Your task to perform on an android device: Clear the cart on bestbuy.com. Image 0: 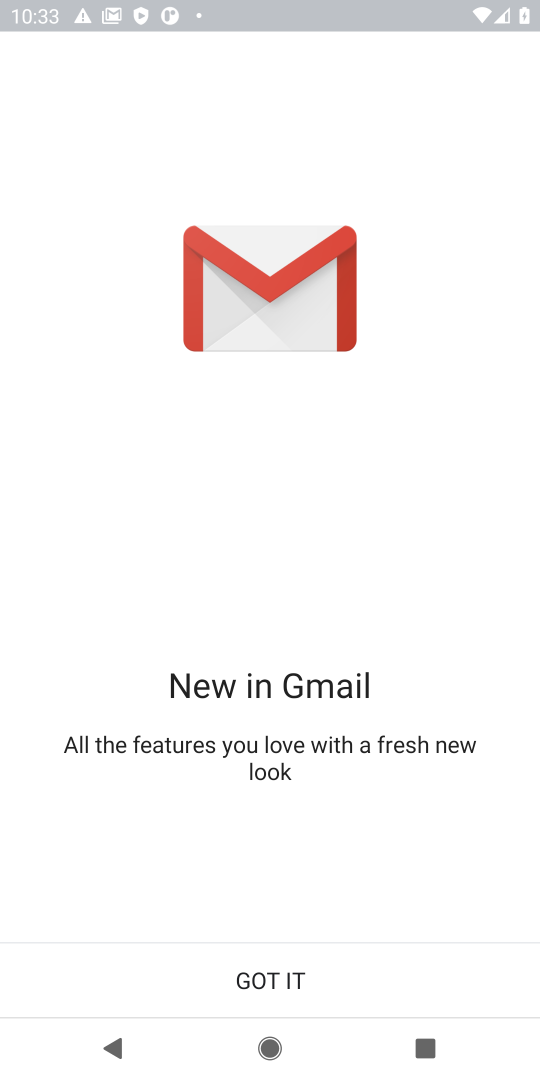
Step 0: press home button
Your task to perform on an android device: Clear the cart on bestbuy.com. Image 1: 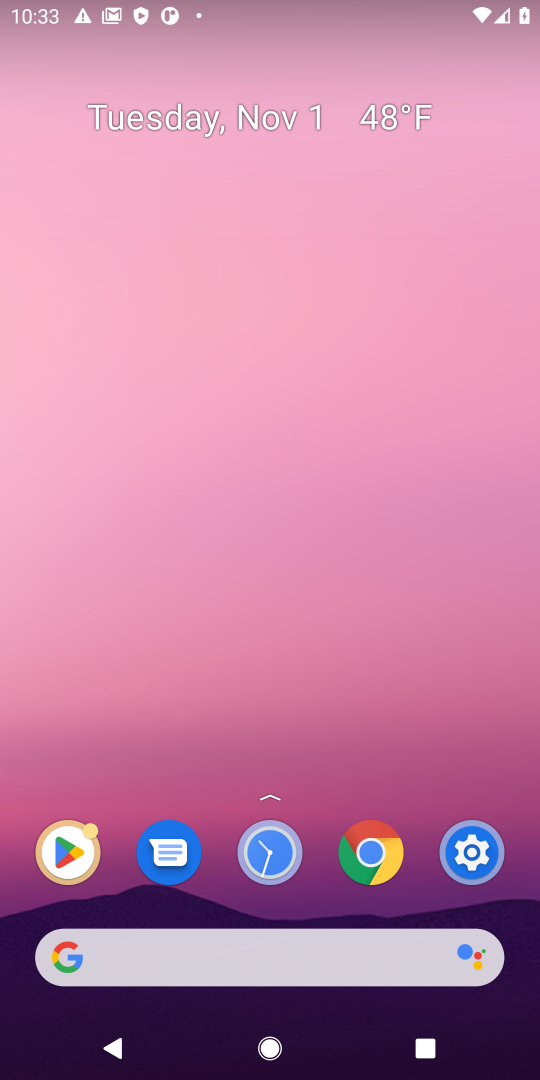
Step 1: click (223, 959)
Your task to perform on an android device: Clear the cart on bestbuy.com. Image 2: 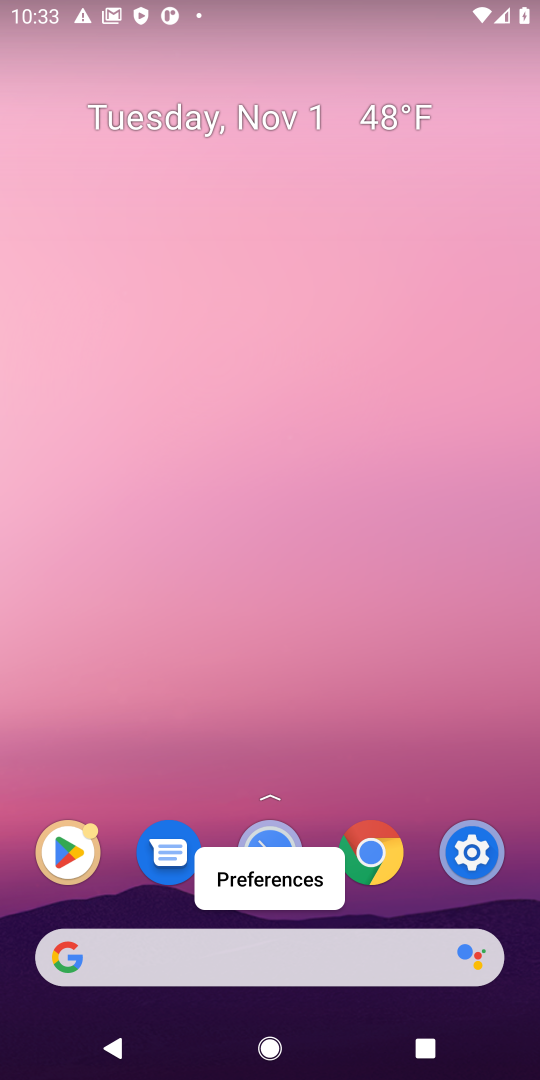
Step 2: click (278, 964)
Your task to perform on an android device: Clear the cart on bestbuy.com. Image 3: 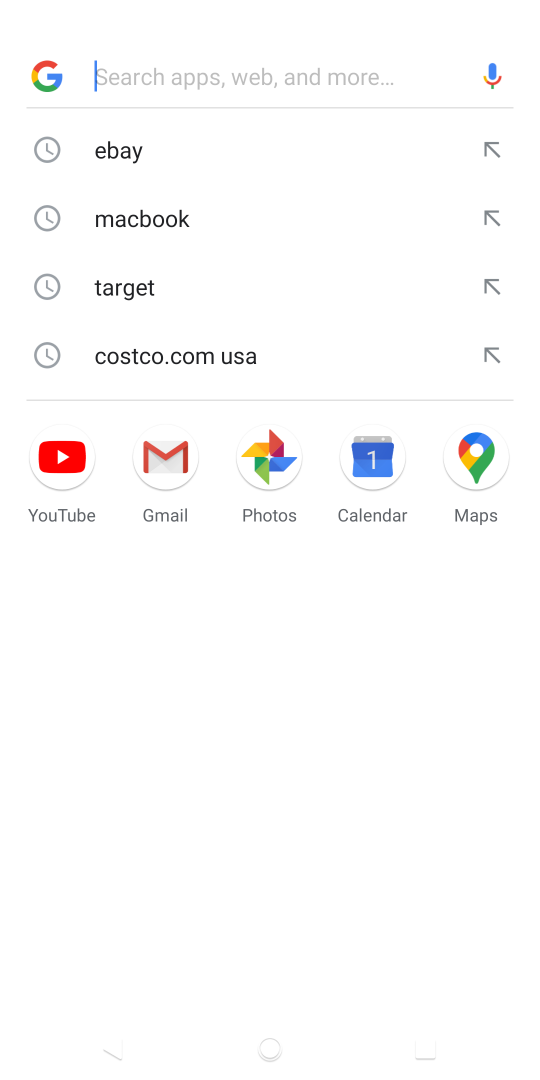
Step 3: click (277, 966)
Your task to perform on an android device: Clear the cart on bestbuy.com. Image 4: 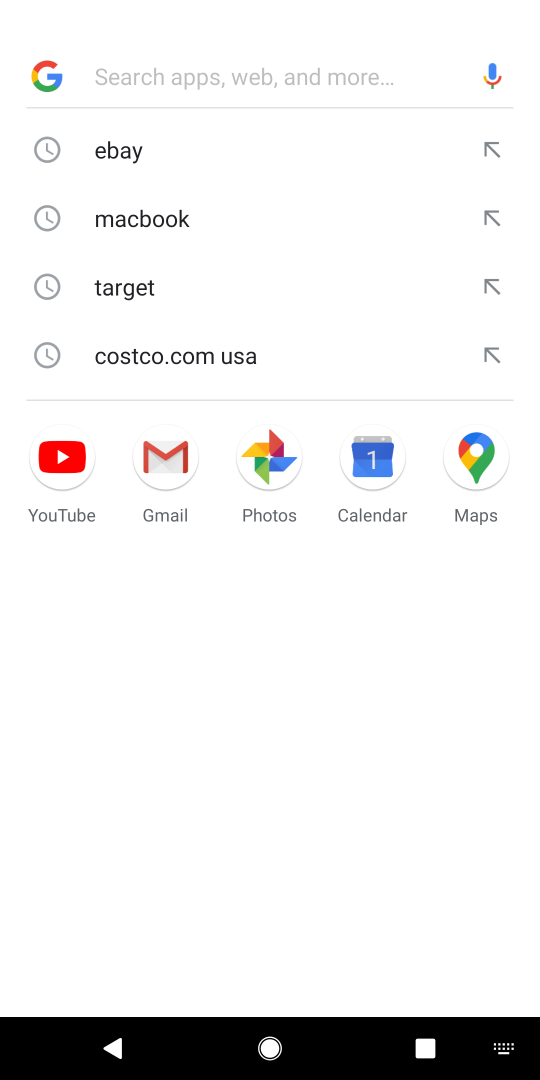
Step 4: type "bestbuy.com."
Your task to perform on an android device: Clear the cart on bestbuy.com. Image 5: 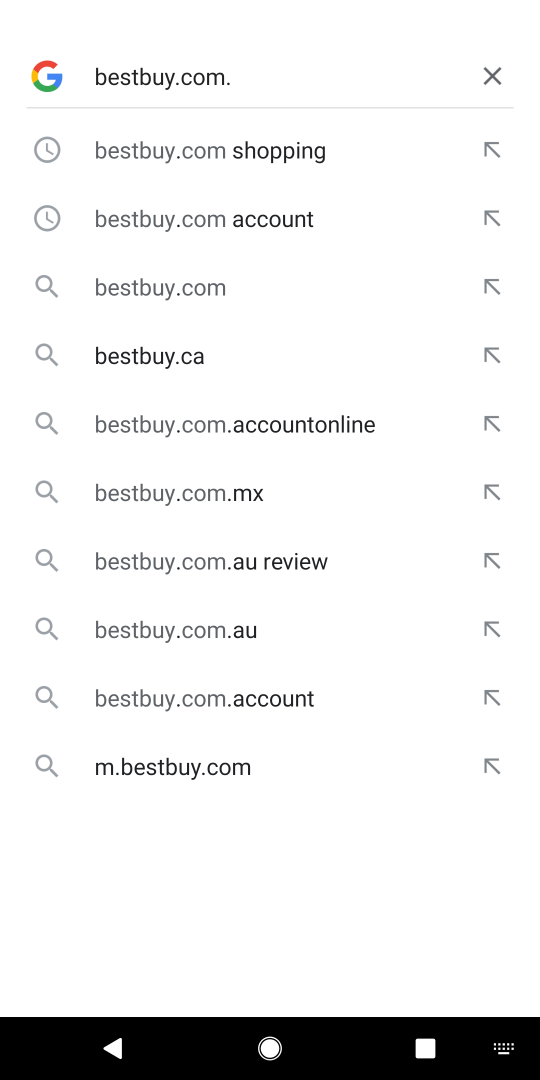
Step 5: type ""
Your task to perform on an android device: Clear the cart on bestbuy.com. Image 6: 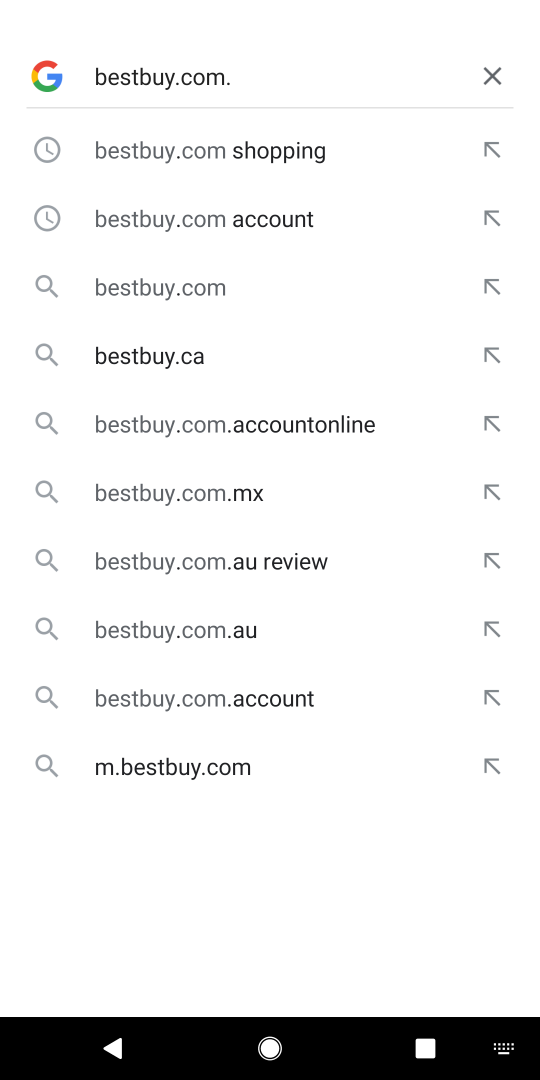
Step 6: press enter
Your task to perform on an android device: Clear the cart on bestbuy.com. Image 7: 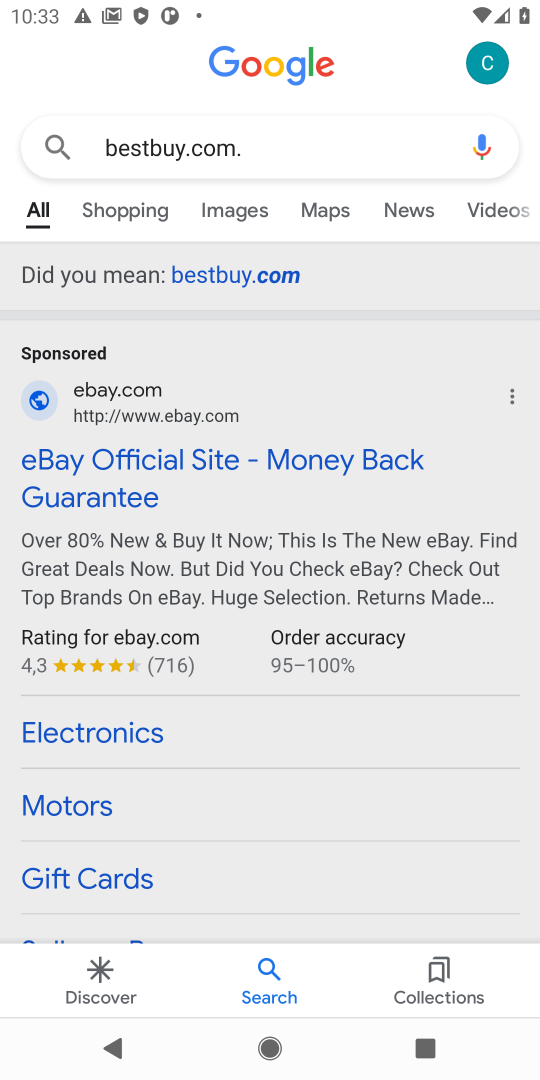
Step 7: drag from (289, 759) to (272, 282)
Your task to perform on an android device: Clear the cart on bestbuy.com. Image 8: 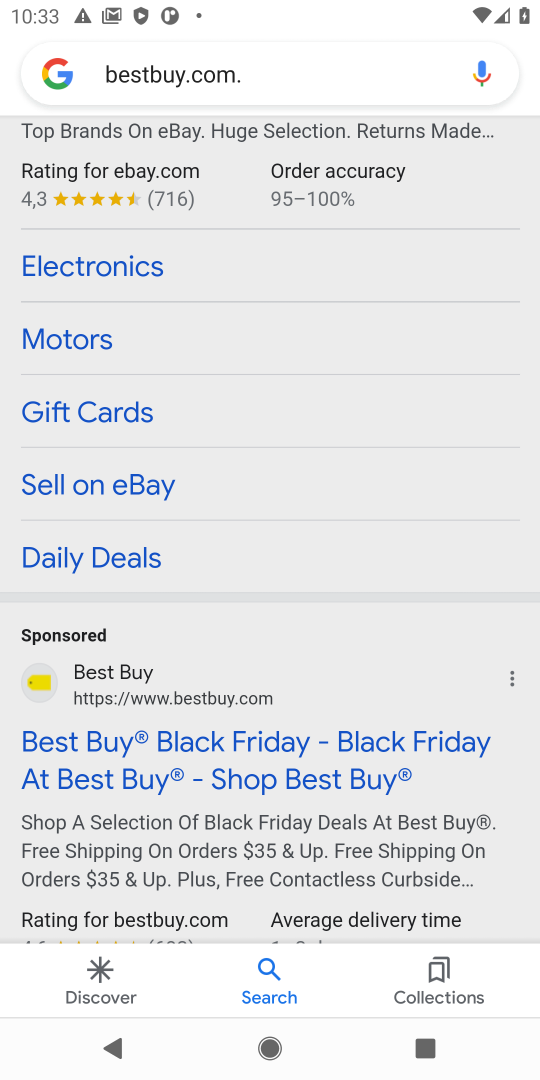
Step 8: click (235, 745)
Your task to perform on an android device: Clear the cart on bestbuy.com. Image 9: 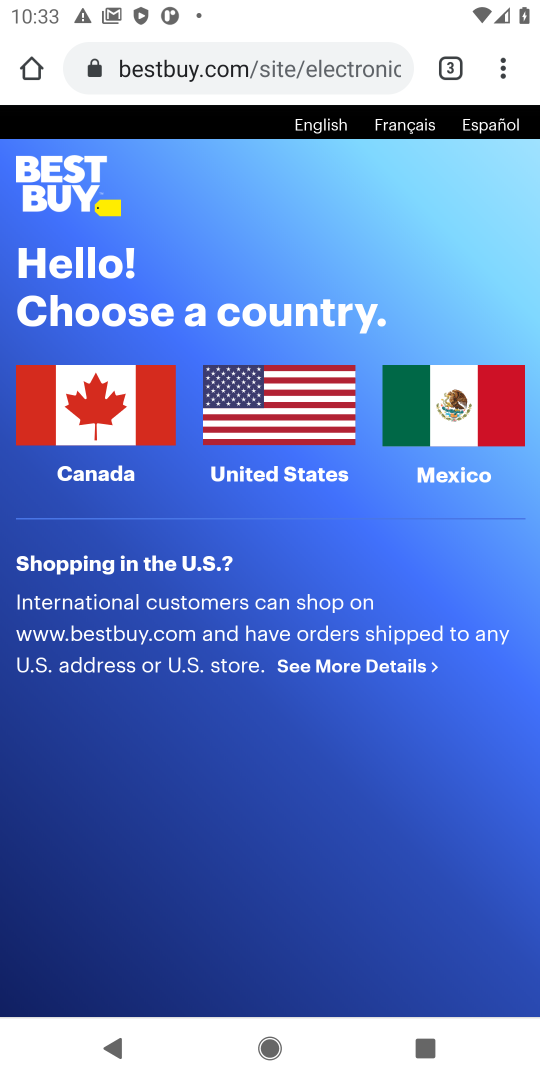
Step 9: click (286, 377)
Your task to perform on an android device: Clear the cart on bestbuy.com. Image 10: 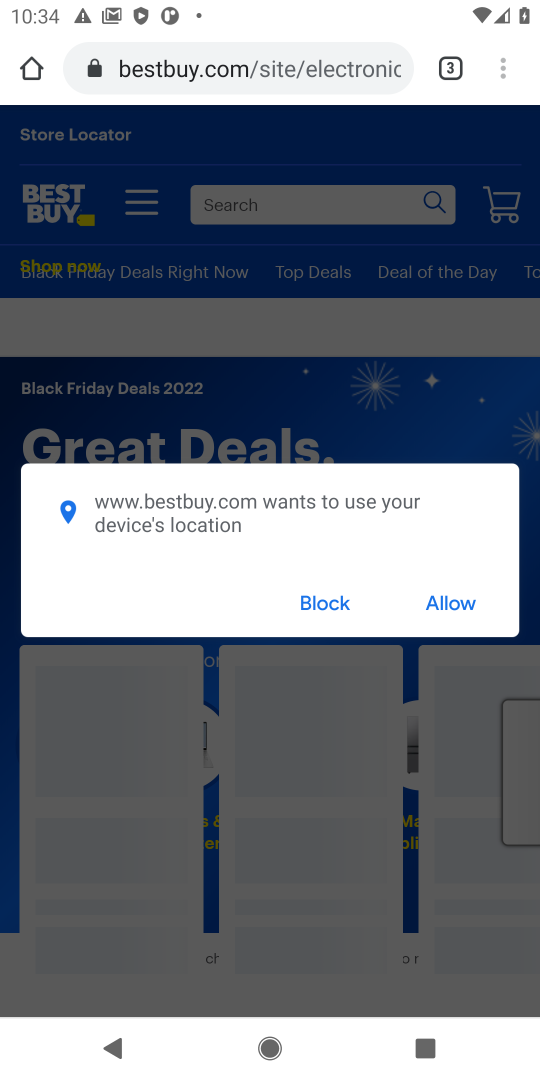
Step 10: click (334, 598)
Your task to perform on an android device: Clear the cart on bestbuy.com. Image 11: 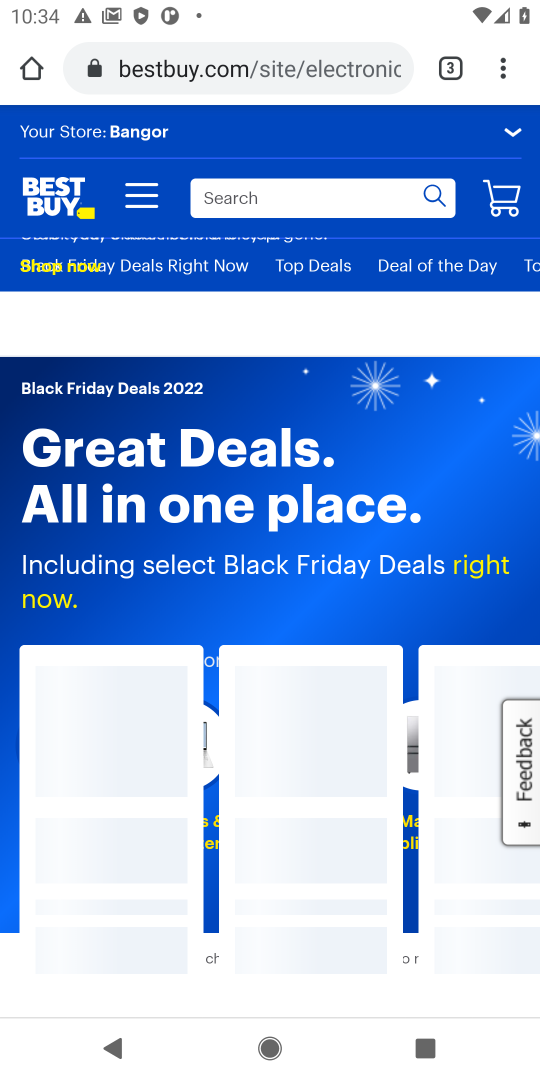
Step 11: click (509, 213)
Your task to perform on an android device: Clear the cart on bestbuy.com. Image 12: 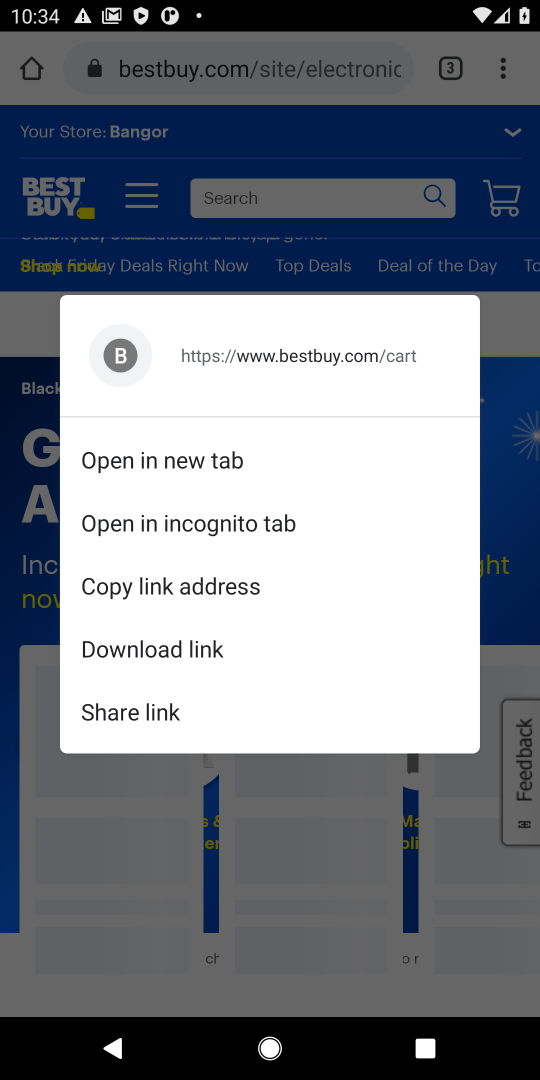
Step 12: task complete